Your task to perform on an android device: turn off notifications settings in the gmail app Image 0: 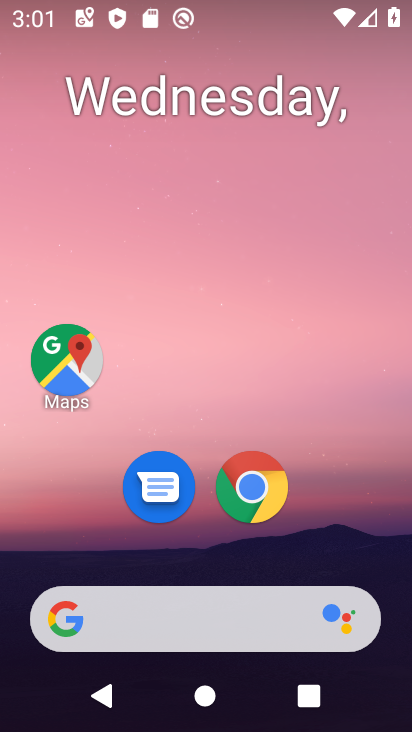
Step 0: drag from (342, 558) to (311, 249)
Your task to perform on an android device: turn off notifications settings in the gmail app Image 1: 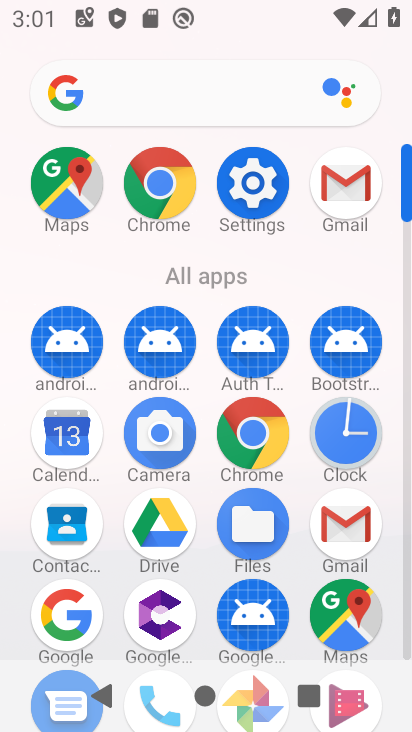
Step 1: click (349, 537)
Your task to perform on an android device: turn off notifications settings in the gmail app Image 2: 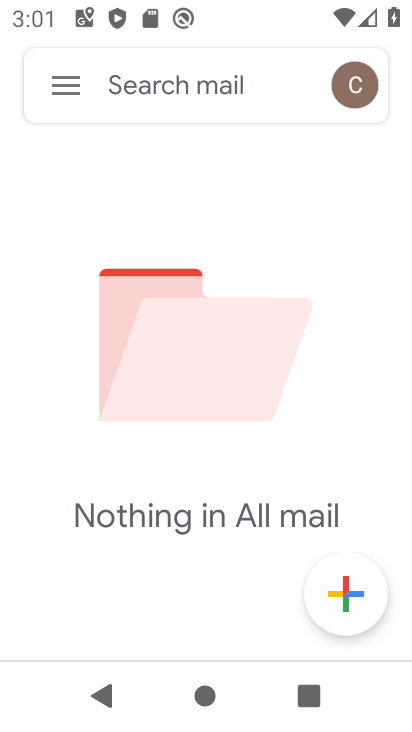
Step 2: click (70, 93)
Your task to perform on an android device: turn off notifications settings in the gmail app Image 3: 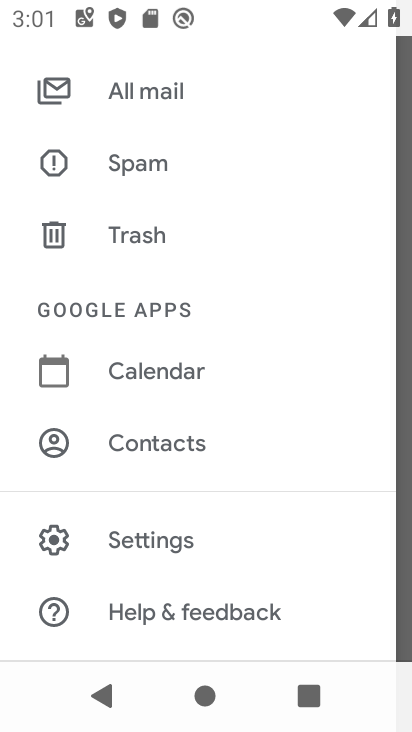
Step 3: click (116, 546)
Your task to perform on an android device: turn off notifications settings in the gmail app Image 4: 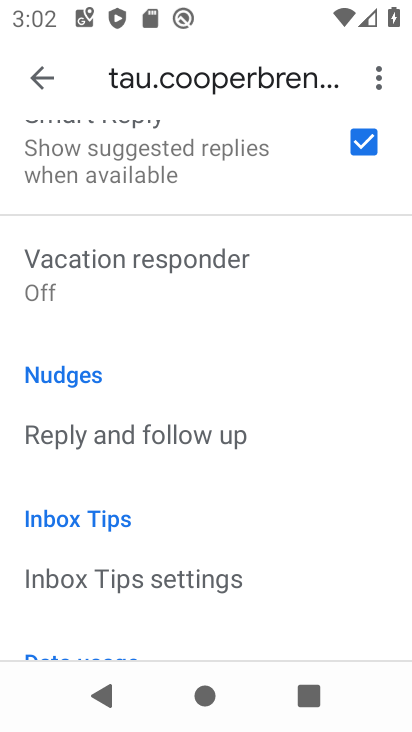
Step 4: drag from (247, 529) to (278, 228)
Your task to perform on an android device: turn off notifications settings in the gmail app Image 5: 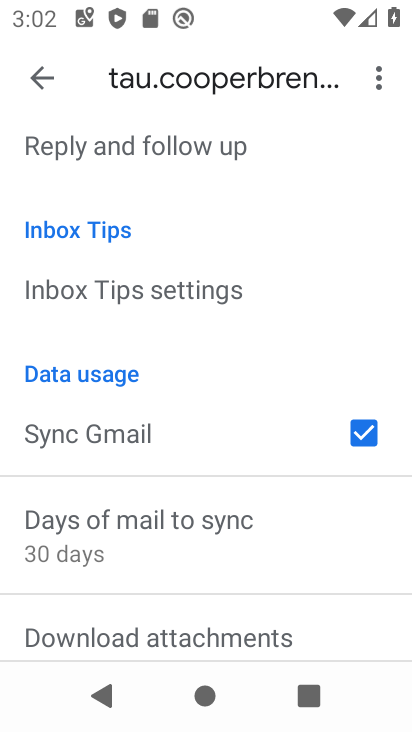
Step 5: click (33, 81)
Your task to perform on an android device: turn off notifications settings in the gmail app Image 6: 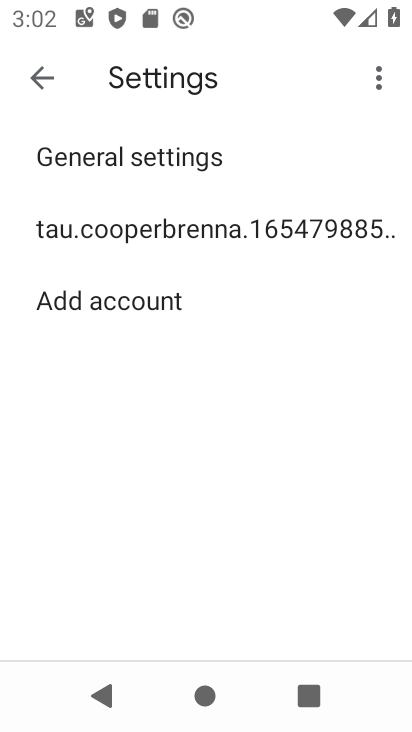
Step 6: click (100, 167)
Your task to perform on an android device: turn off notifications settings in the gmail app Image 7: 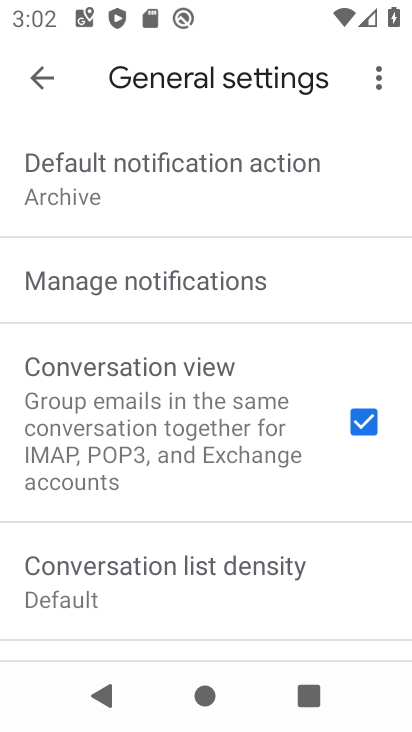
Step 7: click (155, 285)
Your task to perform on an android device: turn off notifications settings in the gmail app Image 8: 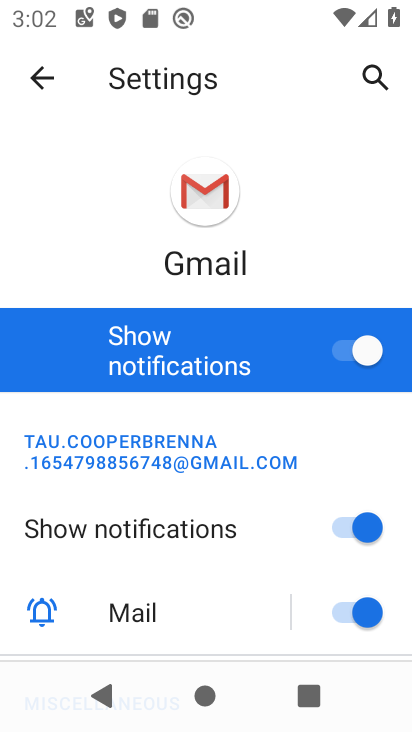
Step 8: click (193, 356)
Your task to perform on an android device: turn off notifications settings in the gmail app Image 9: 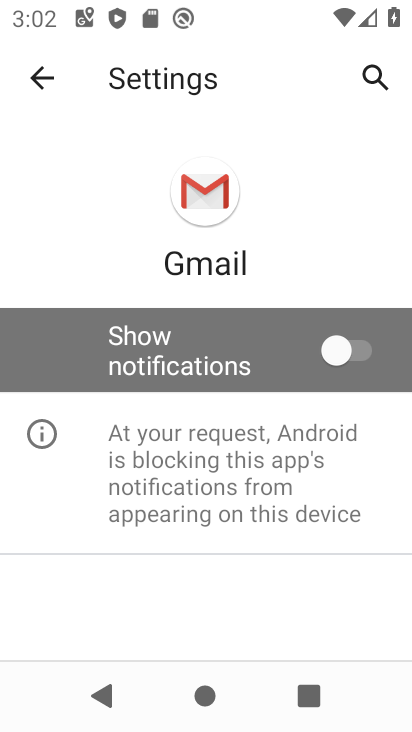
Step 9: task complete